Your task to perform on an android device: Is it going to rain tomorrow? Image 0: 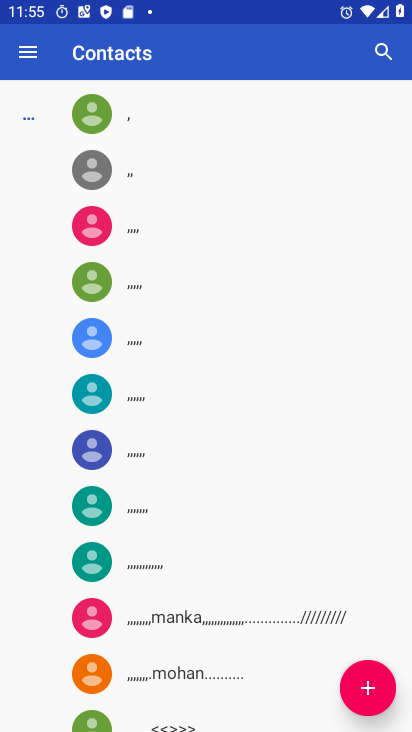
Step 0: press home button
Your task to perform on an android device: Is it going to rain tomorrow? Image 1: 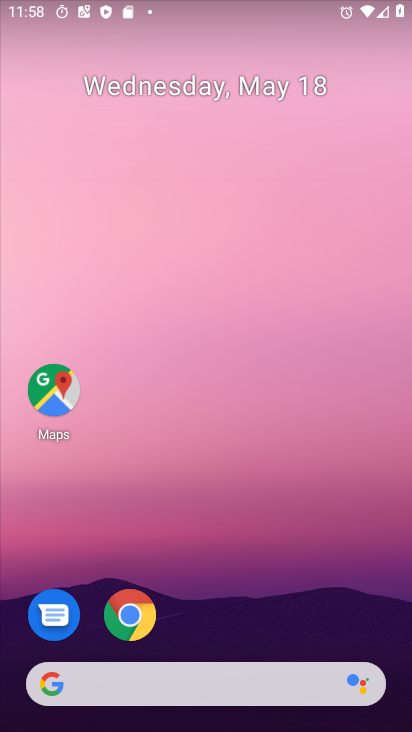
Step 1: click (148, 695)
Your task to perform on an android device: Is it going to rain tomorrow? Image 2: 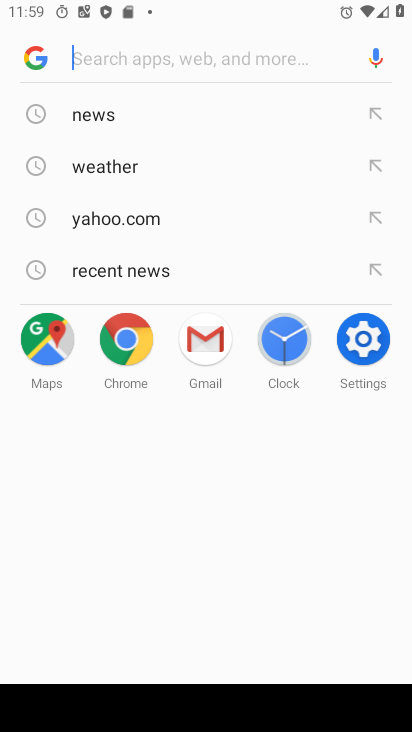
Step 2: click (99, 174)
Your task to perform on an android device: Is it going to rain tomorrow? Image 3: 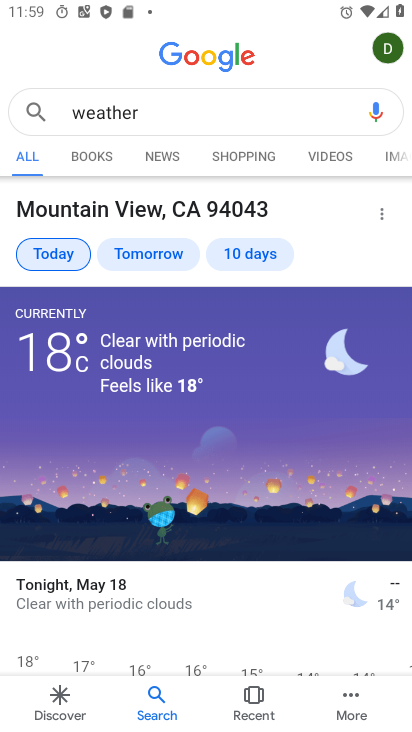
Step 3: click (172, 222)
Your task to perform on an android device: Is it going to rain tomorrow? Image 4: 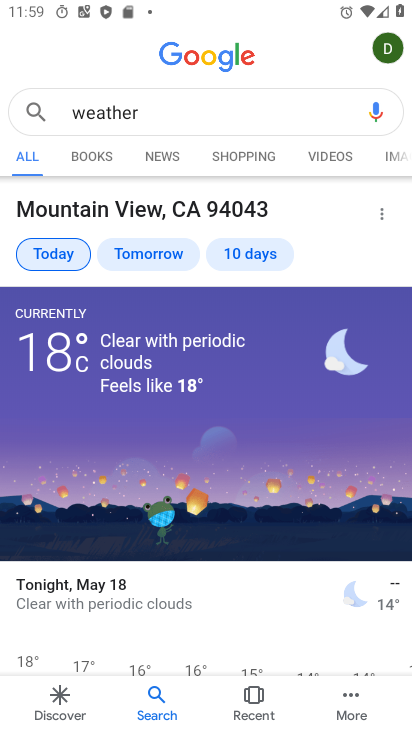
Step 4: click (159, 255)
Your task to perform on an android device: Is it going to rain tomorrow? Image 5: 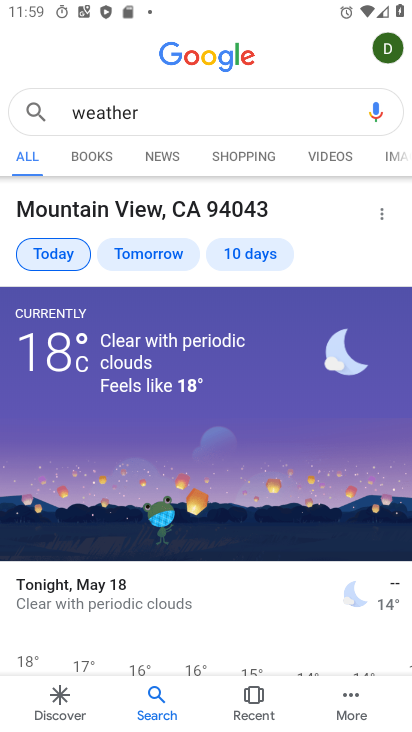
Step 5: click (144, 257)
Your task to perform on an android device: Is it going to rain tomorrow? Image 6: 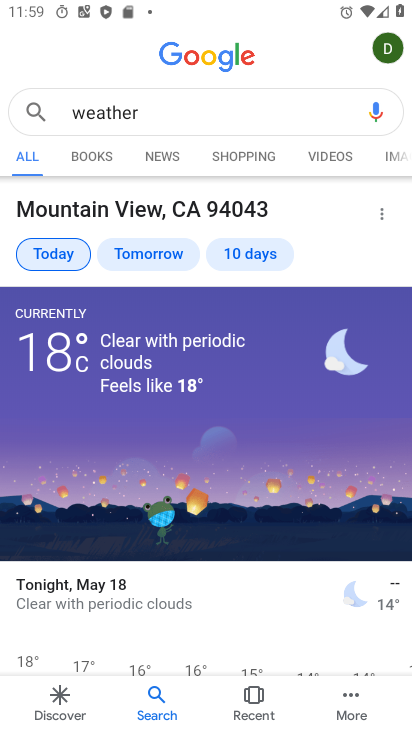
Step 6: click (157, 260)
Your task to perform on an android device: Is it going to rain tomorrow? Image 7: 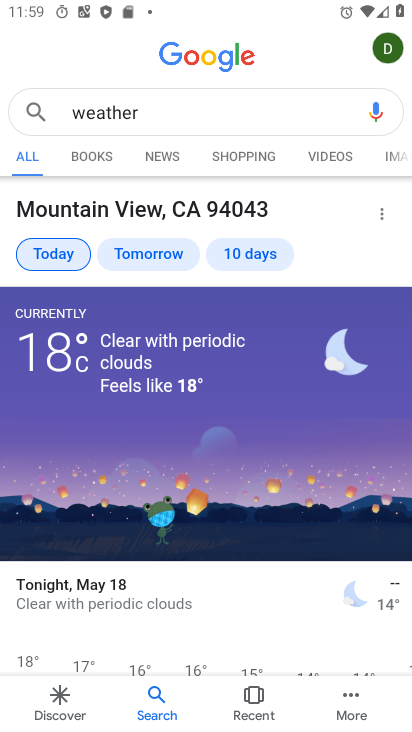
Step 7: click (158, 261)
Your task to perform on an android device: Is it going to rain tomorrow? Image 8: 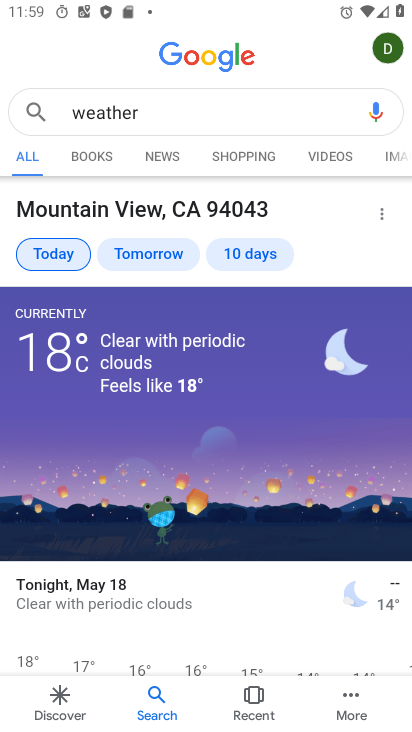
Step 8: task complete